Your task to perform on an android device: Go to wifi settings Image 0: 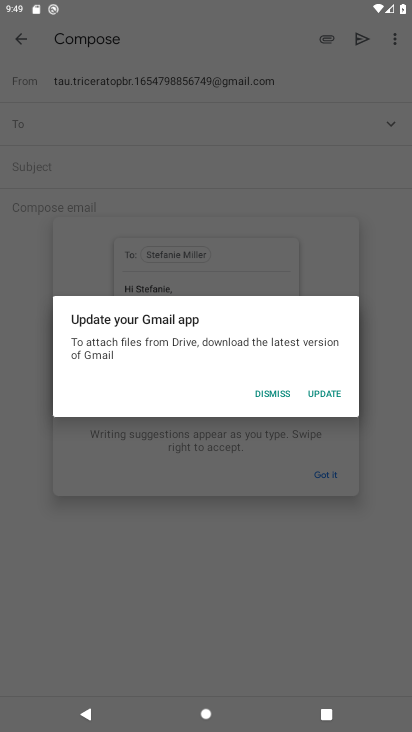
Step 0: press home button
Your task to perform on an android device: Go to wifi settings Image 1: 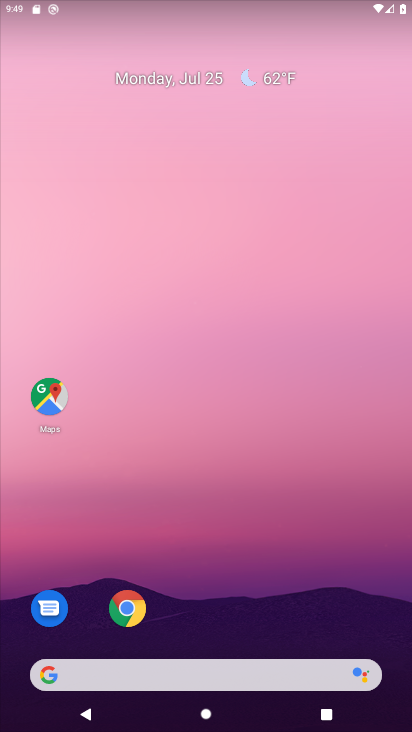
Step 1: drag from (198, 8) to (198, 619)
Your task to perform on an android device: Go to wifi settings Image 2: 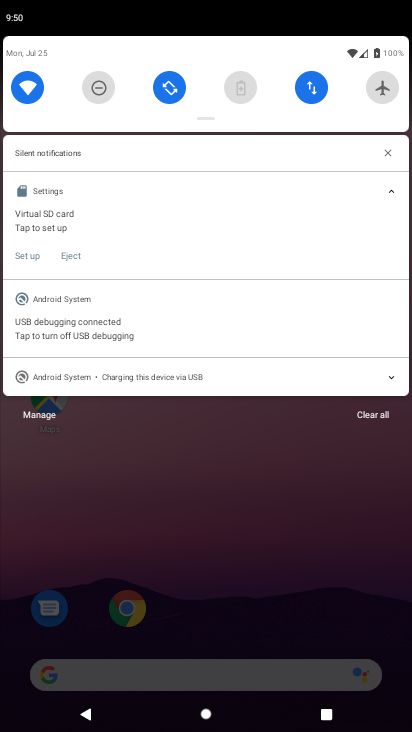
Step 2: click (171, 482)
Your task to perform on an android device: Go to wifi settings Image 3: 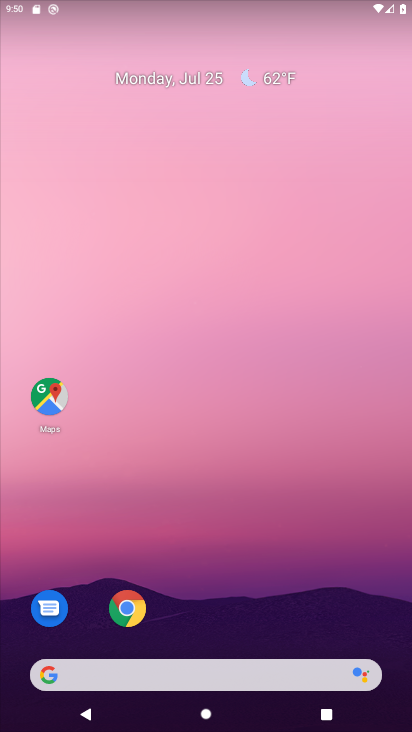
Step 3: drag from (213, 629) to (250, 12)
Your task to perform on an android device: Go to wifi settings Image 4: 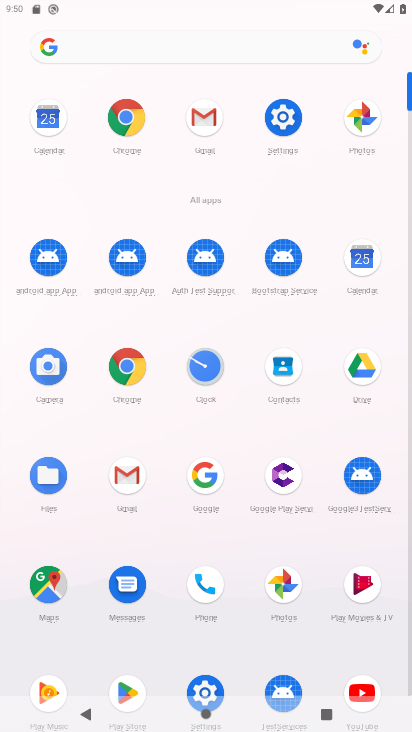
Step 4: click (283, 111)
Your task to perform on an android device: Go to wifi settings Image 5: 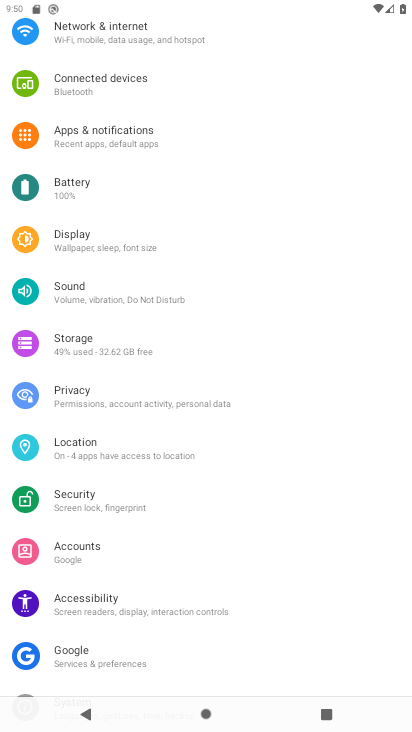
Step 5: click (121, 32)
Your task to perform on an android device: Go to wifi settings Image 6: 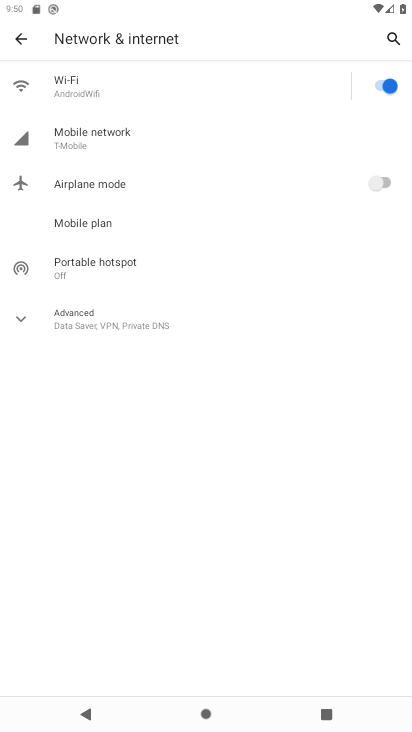
Step 6: click (102, 86)
Your task to perform on an android device: Go to wifi settings Image 7: 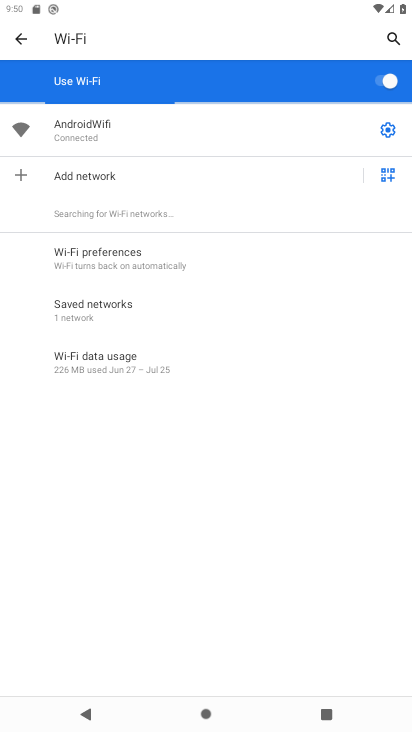
Step 7: task complete